Your task to perform on an android device: Go to sound settings Image 0: 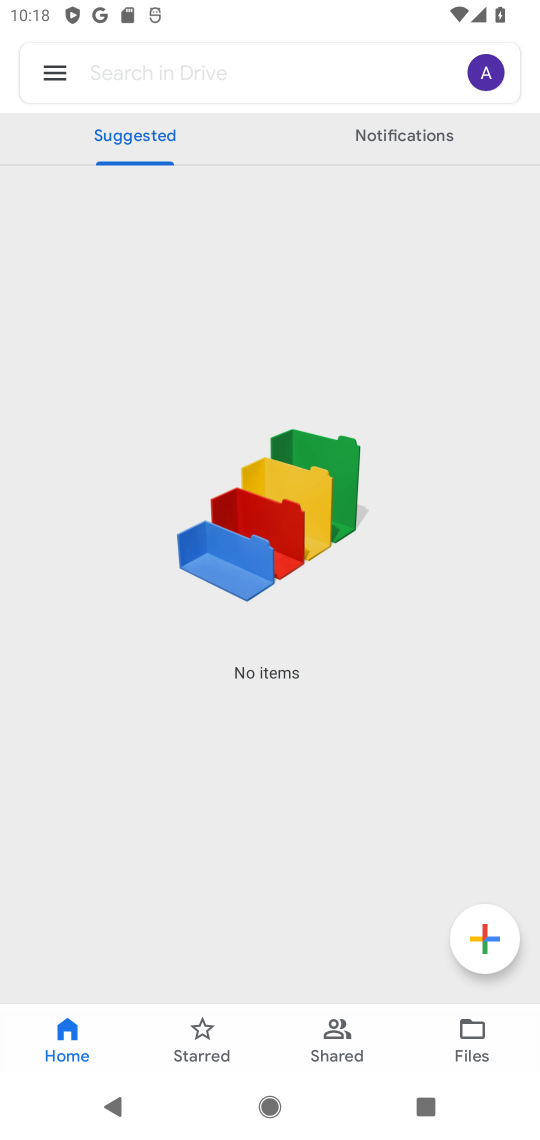
Step 0: press home button
Your task to perform on an android device: Go to sound settings Image 1: 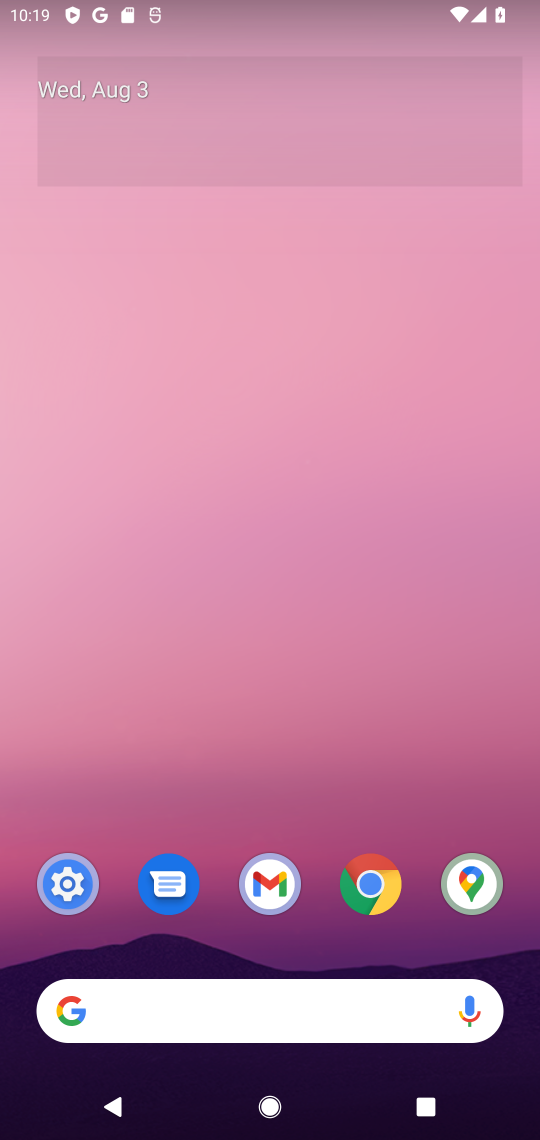
Step 1: drag from (216, 886) to (211, 360)
Your task to perform on an android device: Go to sound settings Image 2: 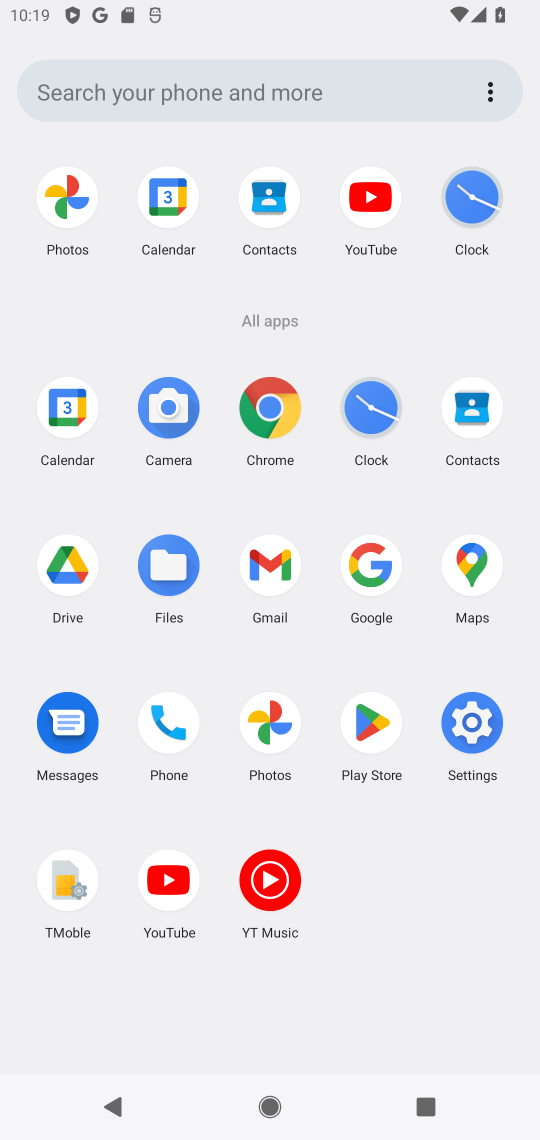
Step 2: click (467, 720)
Your task to perform on an android device: Go to sound settings Image 3: 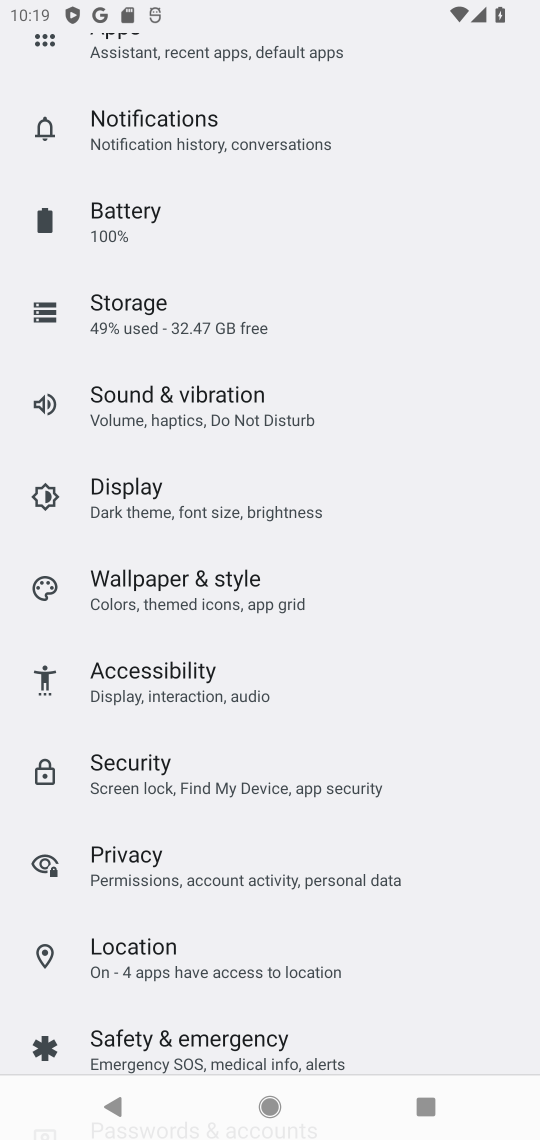
Step 3: click (182, 405)
Your task to perform on an android device: Go to sound settings Image 4: 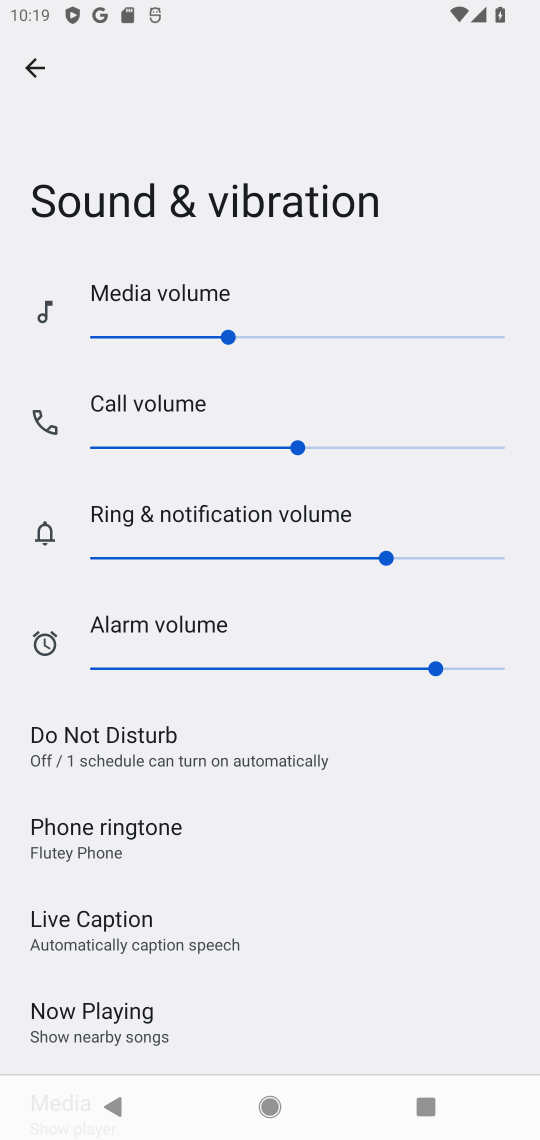
Step 4: task complete